Your task to perform on an android device: Open the web browser Image 0: 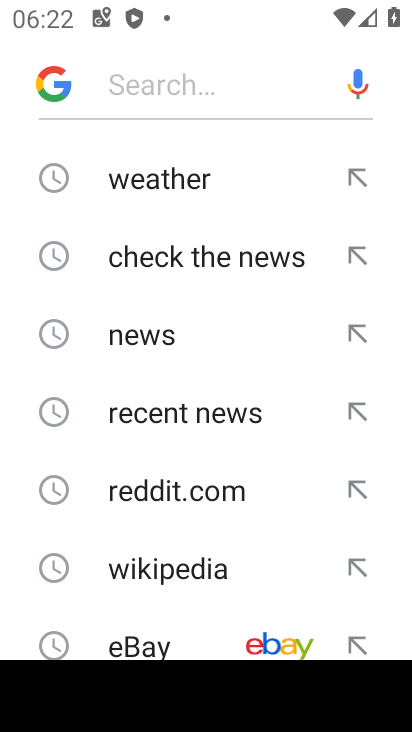
Step 0: press home button
Your task to perform on an android device: Open the web browser Image 1: 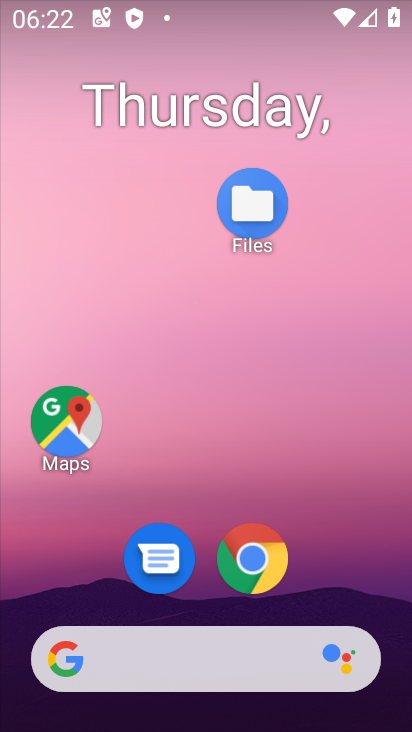
Step 1: click (245, 564)
Your task to perform on an android device: Open the web browser Image 2: 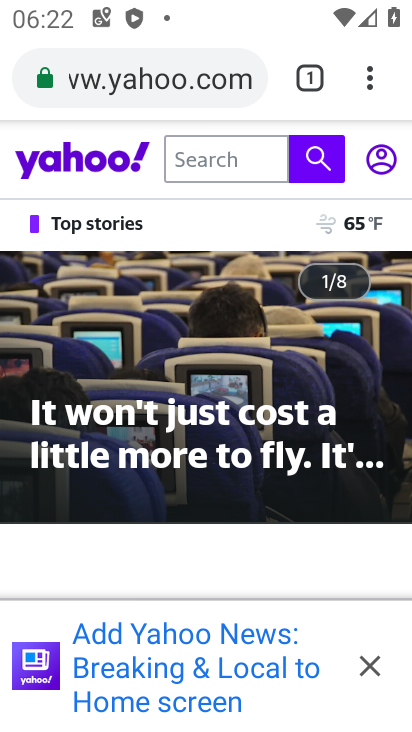
Step 2: task complete